Your task to perform on an android device: see tabs open on other devices in the chrome app Image 0: 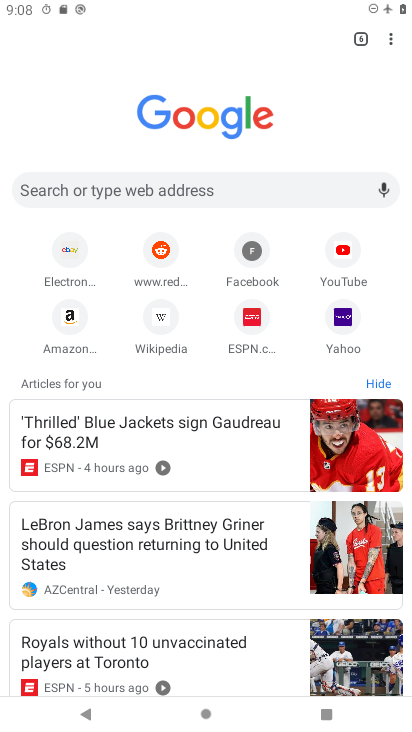
Step 0: press back button
Your task to perform on an android device: see tabs open on other devices in the chrome app Image 1: 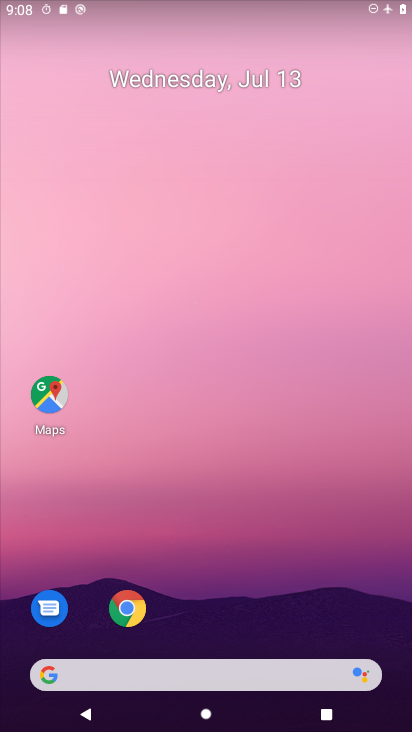
Step 1: drag from (283, 647) to (267, 196)
Your task to perform on an android device: see tabs open on other devices in the chrome app Image 2: 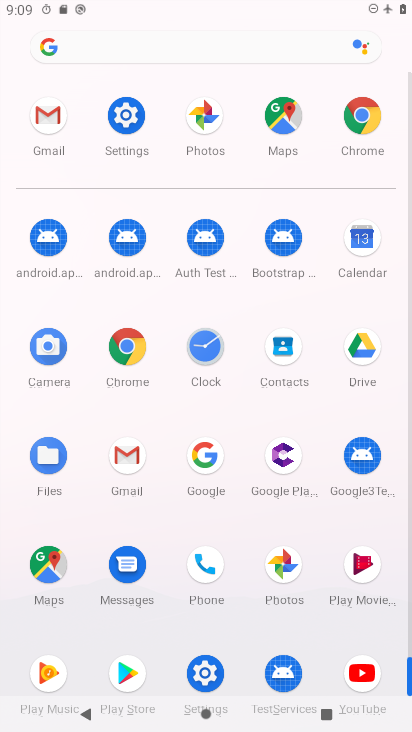
Step 2: click (363, 122)
Your task to perform on an android device: see tabs open on other devices in the chrome app Image 3: 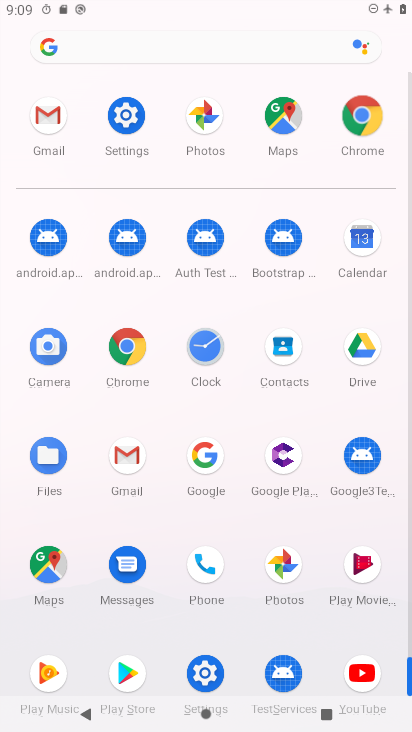
Step 3: click (363, 121)
Your task to perform on an android device: see tabs open on other devices in the chrome app Image 4: 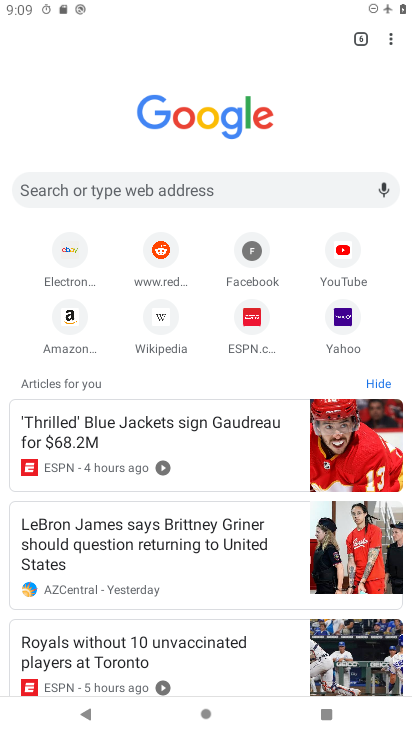
Step 4: click (384, 39)
Your task to perform on an android device: see tabs open on other devices in the chrome app Image 5: 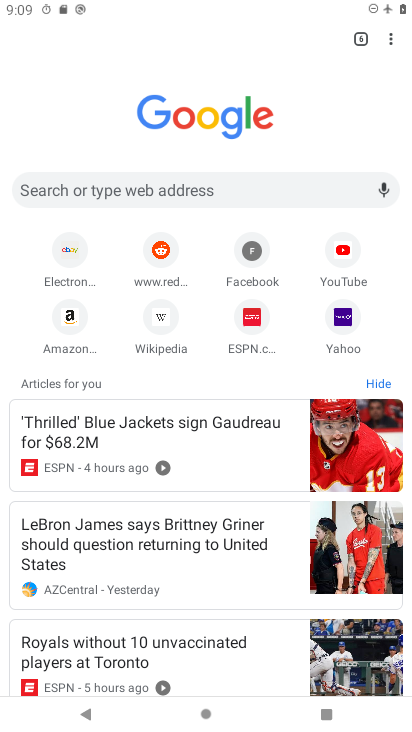
Step 5: drag from (392, 40) to (250, 181)
Your task to perform on an android device: see tabs open on other devices in the chrome app Image 6: 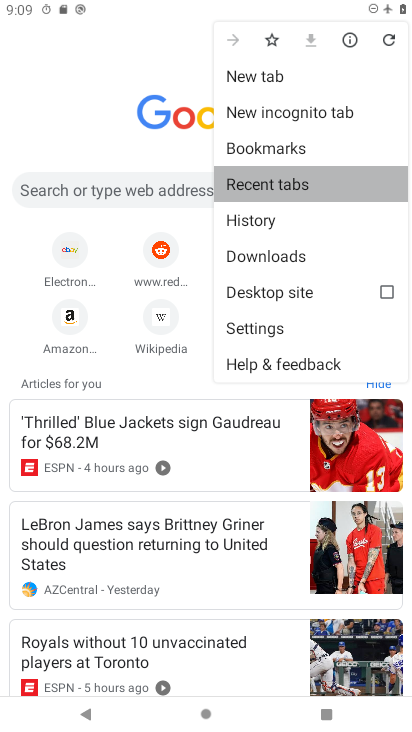
Step 6: click (250, 181)
Your task to perform on an android device: see tabs open on other devices in the chrome app Image 7: 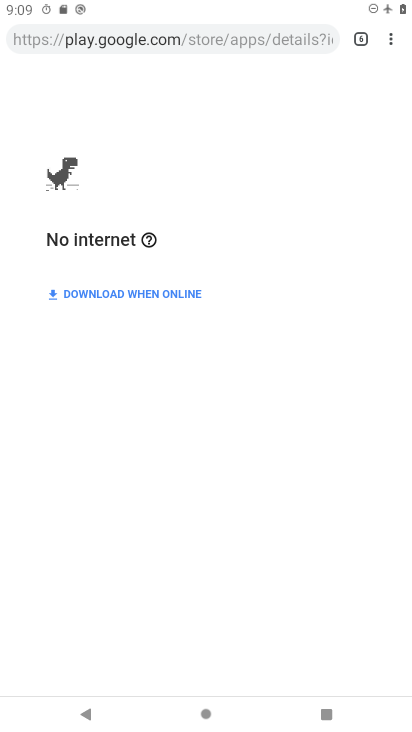
Step 7: task complete